Your task to perform on an android device: Search for sushi restaurants on Maps Image 0: 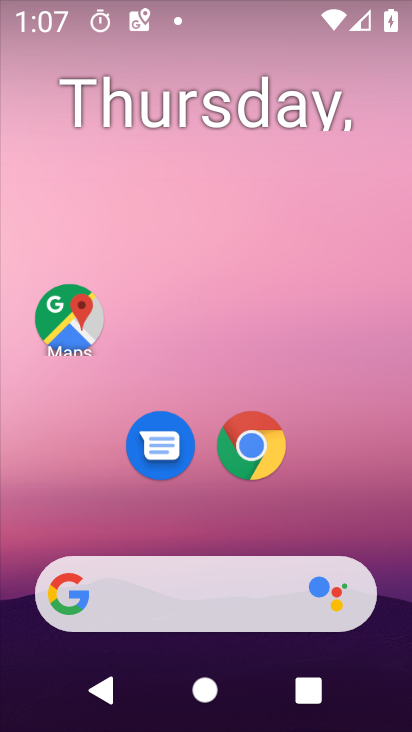
Step 0: click (58, 322)
Your task to perform on an android device: Search for sushi restaurants on Maps Image 1: 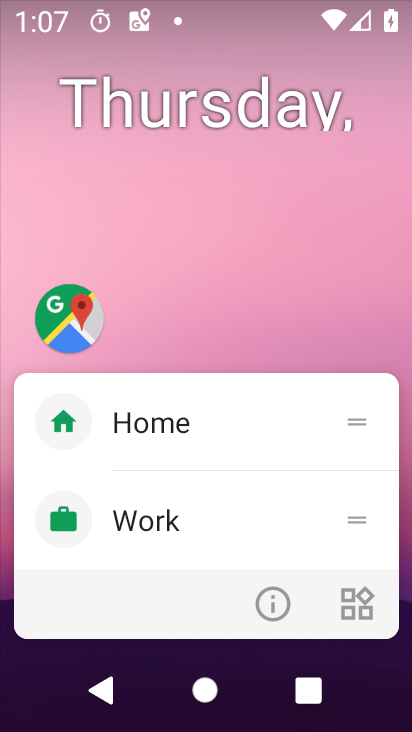
Step 1: click (57, 323)
Your task to perform on an android device: Search for sushi restaurants on Maps Image 2: 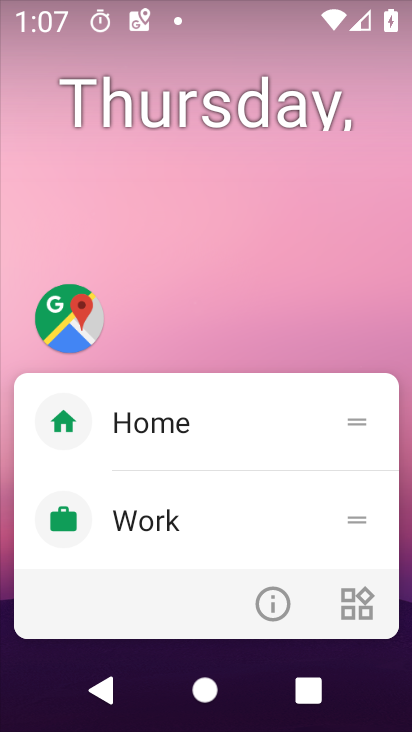
Step 2: click (77, 321)
Your task to perform on an android device: Search for sushi restaurants on Maps Image 3: 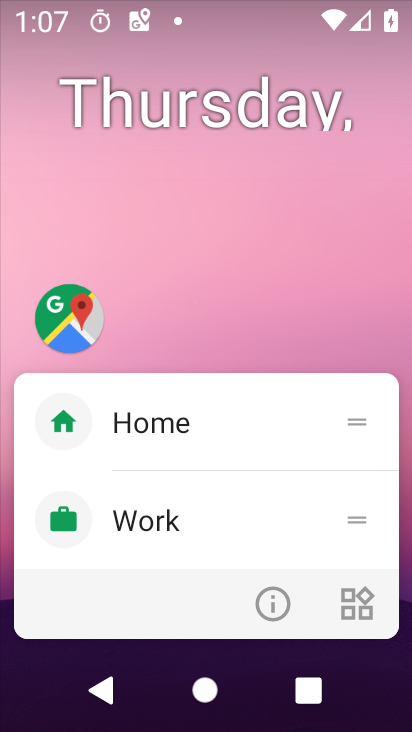
Step 3: click (78, 315)
Your task to perform on an android device: Search for sushi restaurants on Maps Image 4: 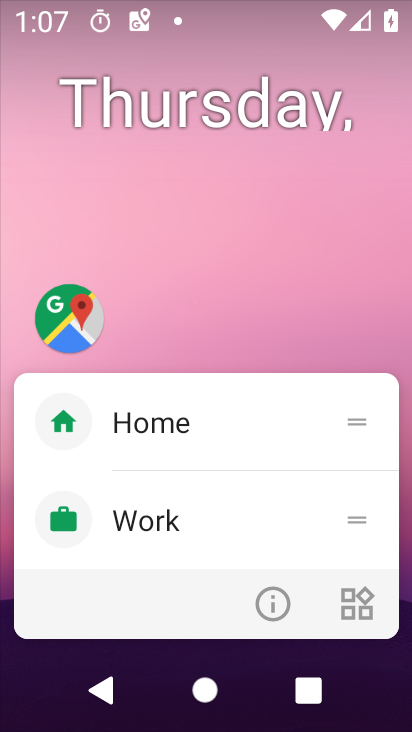
Step 4: click (78, 315)
Your task to perform on an android device: Search for sushi restaurants on Maps Image 5: 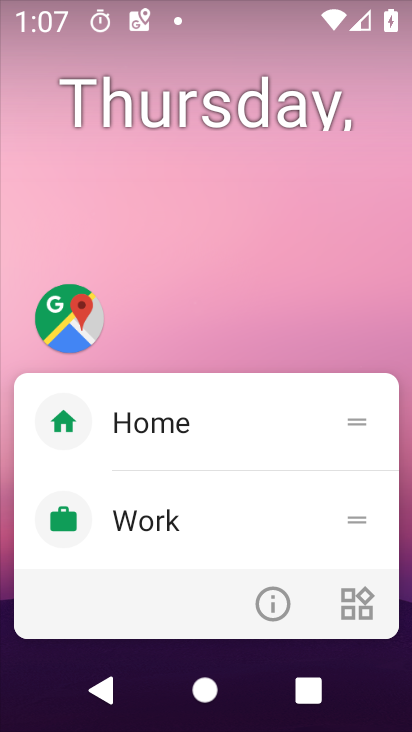
Step 5: click (78, 315)
Your task to perform on an android device: Search for sushi restaurants on Maps Image 6: 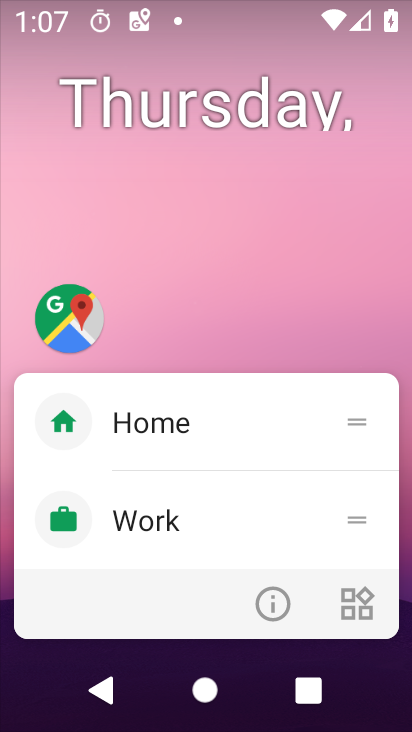
Step 6: click (78, 315)
Your task to perform on an android device: Search for sushi restaurants on Maps Image 7: 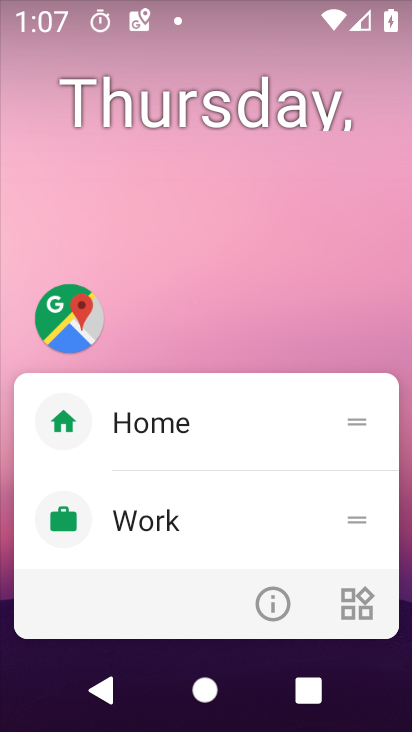
Step 7: click (75, 329)
Your task to perform on an android device: Search for sushi restaurants on Maps Image 8: 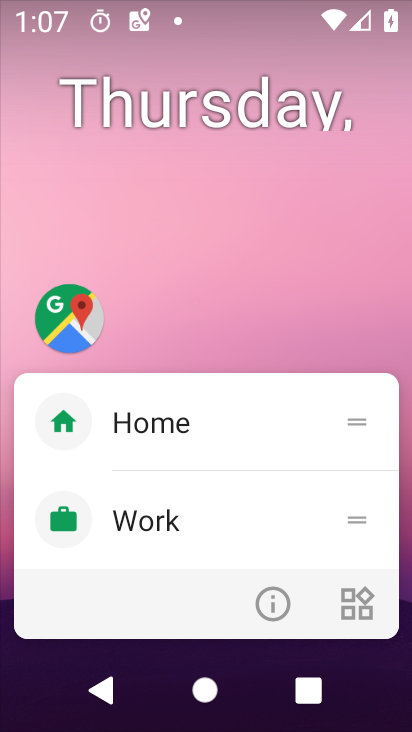
Step 8: click (75, 325)
Your task to perform on an android device: Search for sushi restaurants on Maps Image 9: 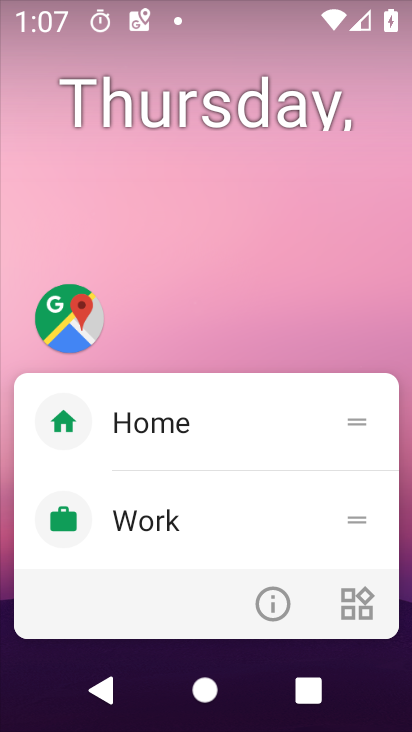
Step 9: click (75, 323)
Your task to perform on an android device: Search for sushi restaurants on Maps Image 10: 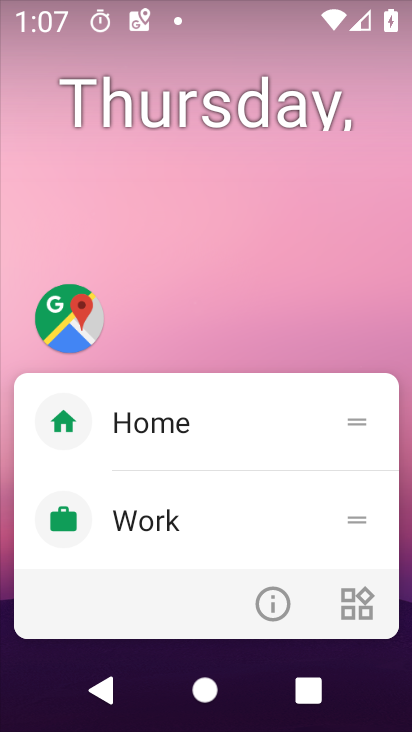
Step 10: click (75, 322)
Your task to perform on an android device: Search for sushi restaurants on Maps Image 11: 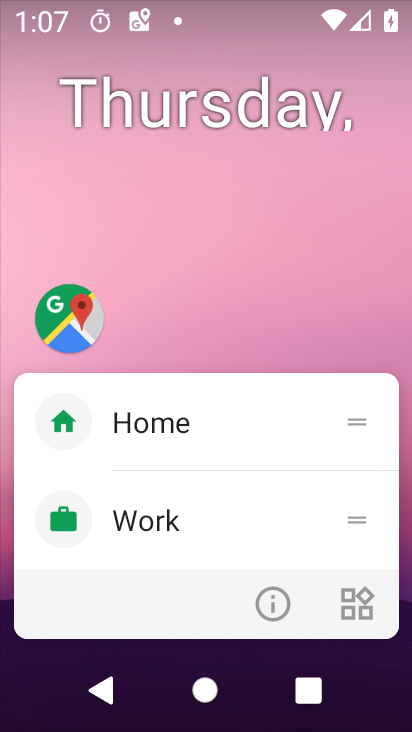
Step 11: click (75, 322)
Your task to perform on an android device: Search for sushi restaurants on Maps Image 12: 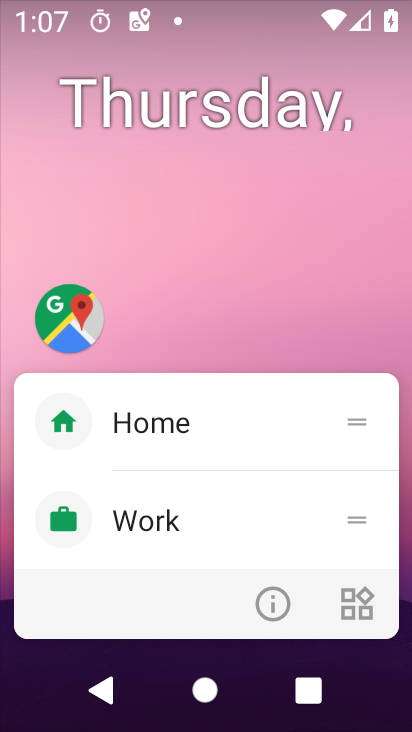
Step 12: click (75, 322)
Your task to perform on an android device: Search for sushi restaurants on Maps Image 13: 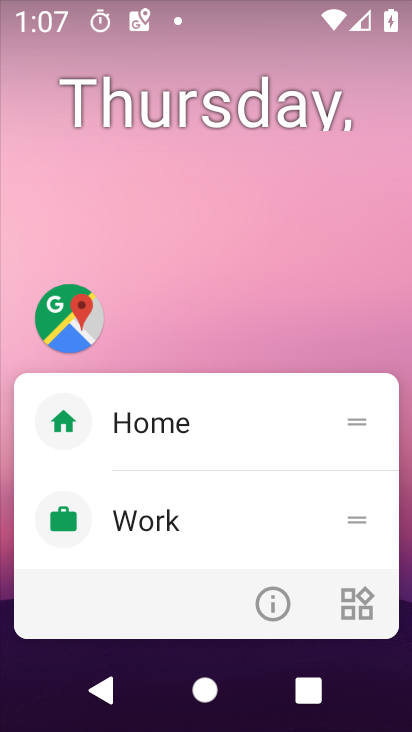
Step 13: click (87, 308)
Your task to perform on an android device: Search for sushi restaurants on Maps Image 14: 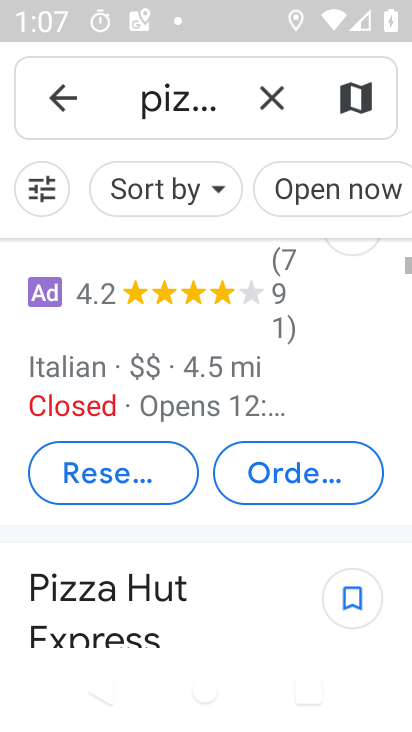
Step 14: click (277, 104)
Your task to perform on an android device: Search for sushi restaurants on Maps Image 15: 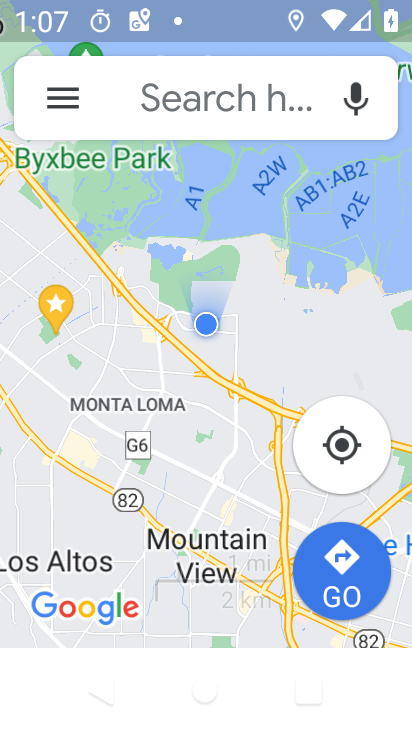
Step 15: click (257, 105)
Your task to perform on an android device: Search for sushi restaurants on Maps Image 16: 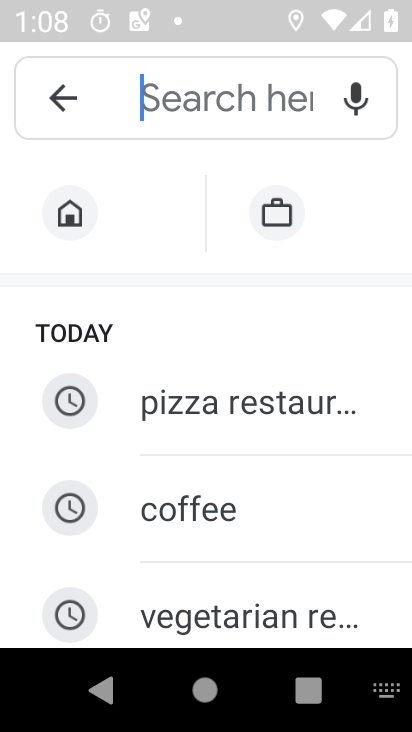
Step 16: type "sushi restaurants "
Your task to perform on an android device: Search for sushi restaurants on Maps Image 17: 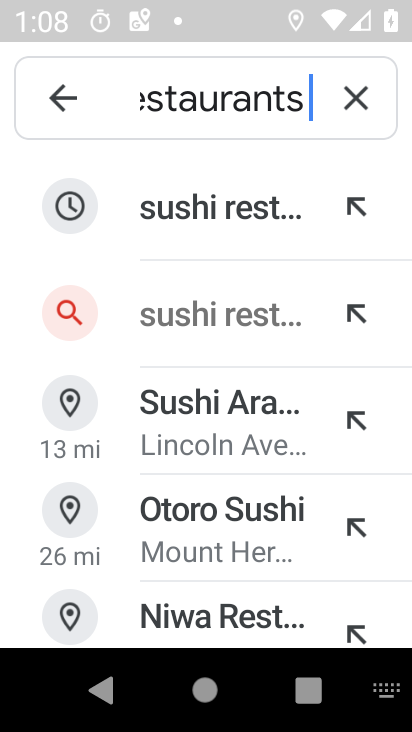
Step 17: click (224, 237)
Your task to perform on an android device: Search for sushi restaurants on Maps Image 18: 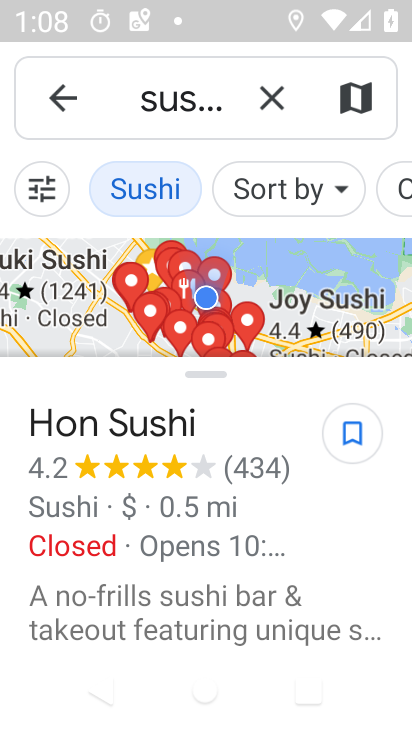
Step 18: task complete